Your task to perform on an android device: turn on notifications settings in the gmail app Image 0: 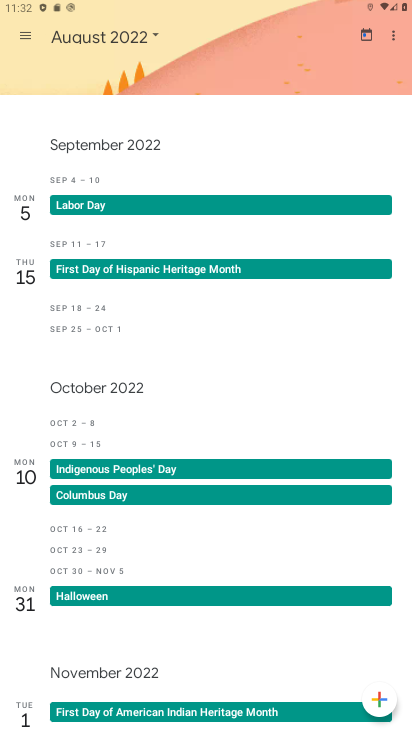
Step 0: press home button
Your task to perform on an android device: turn on notifications settings in the gmail app Image 1: 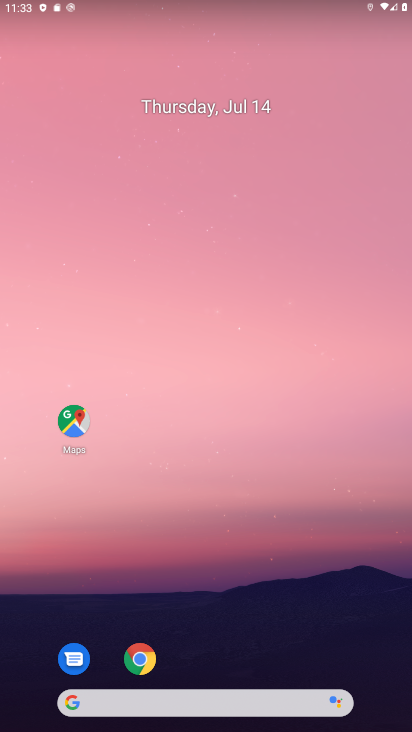
Step 1: drag from (220, 596) to (216, 215)
Your task to perform on an android device: turn on notifications settings in the gmail app Image 2: 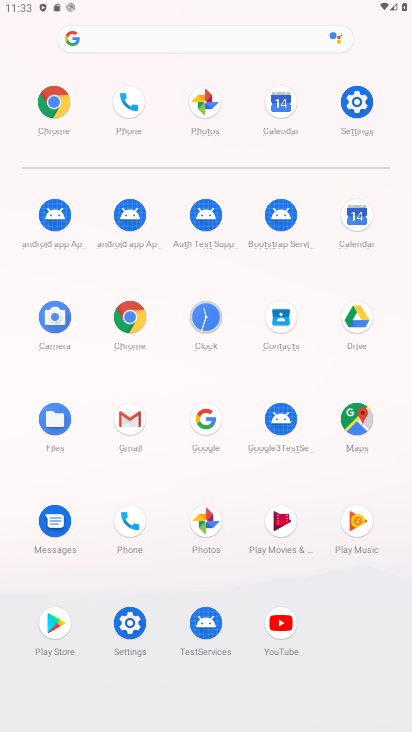
Step 2: click (126, 422)
Your task to perform on an android device: turn on notifications settings in the gmail app Image 3: 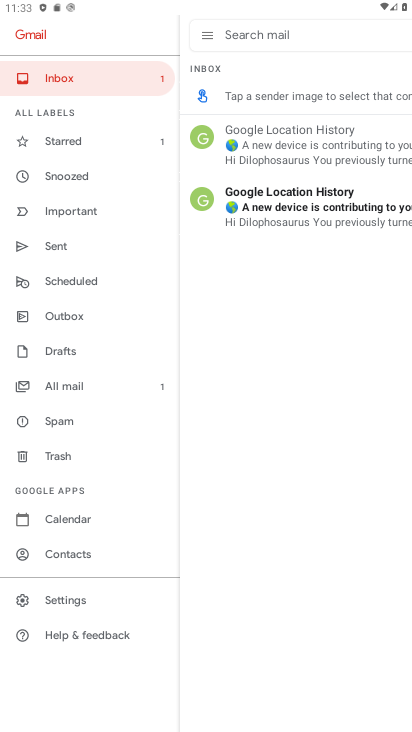
Step 3: click (126, 410)
Your task to perform on an android device: turn on notifications settings in the gmail app Image 4: 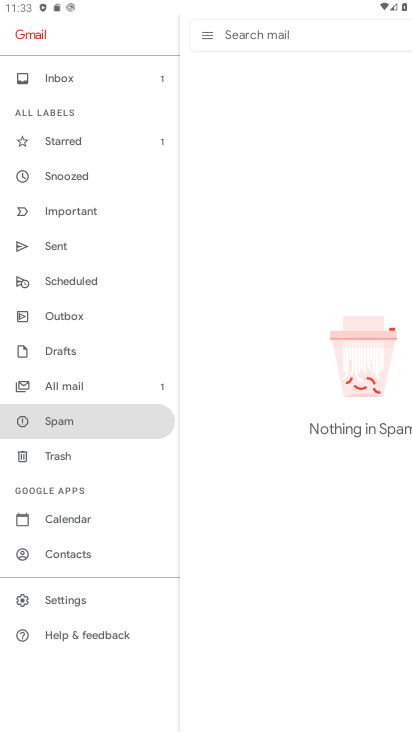
Step 4: click (78, 585)
Your task to perform on an android device: turn on notifications settings in the gmail app Image 5: 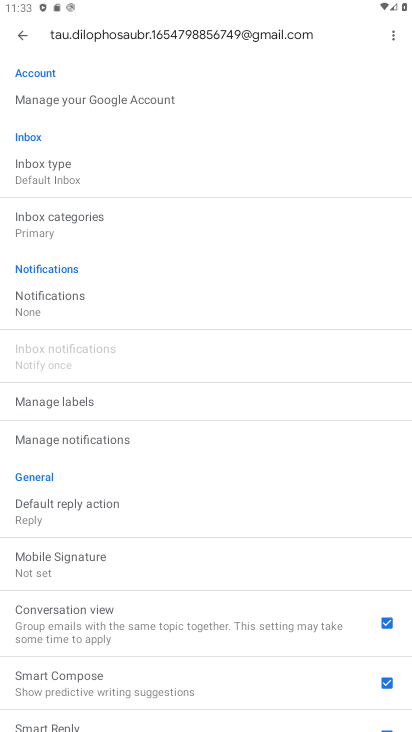
Step 5: click (107, 299)
Your task to perform on an android device: turn on notifications settings in the gmail app Image 6: 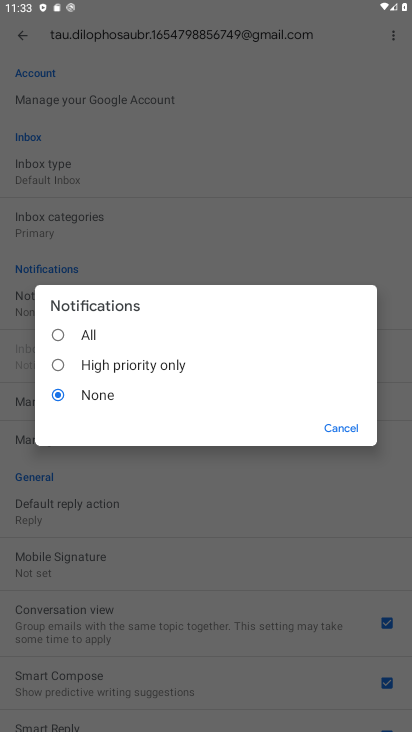
Step 6: click (100, 342)
Your task to perform on an android device: turn on notifications settings in the gmail app Image 7: 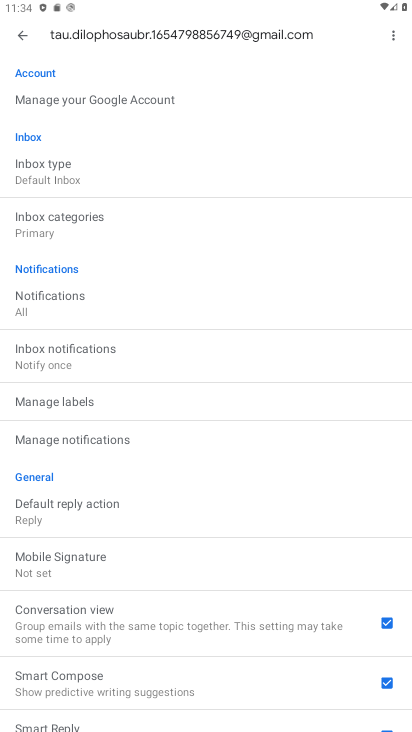
Step 7: task complete